Your task to perform on an android device: Open Yahoo.com Image 0: 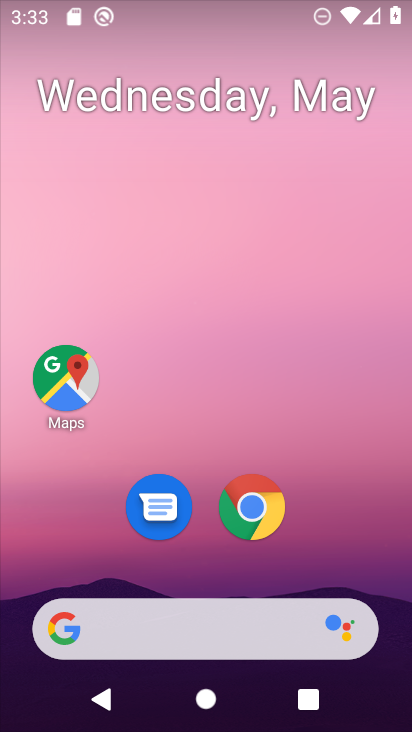
Step 0: click (254, 523)
Your task to perform on an android device: Open Yahoo.com Image 1: 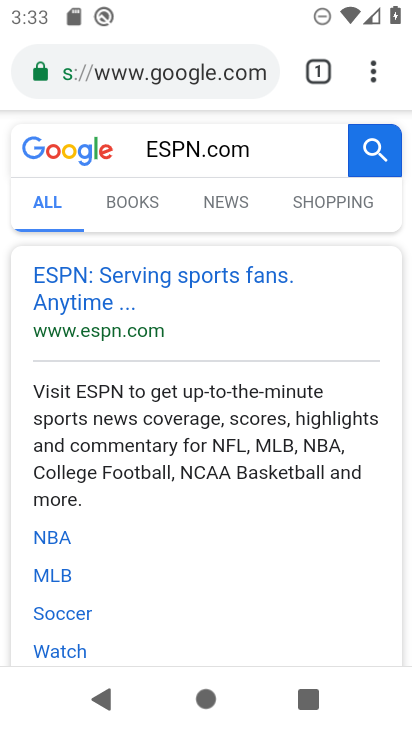
Step 1: click (233, 72)
Your task to perform on an android device: Open Yahoo.com Image 2: 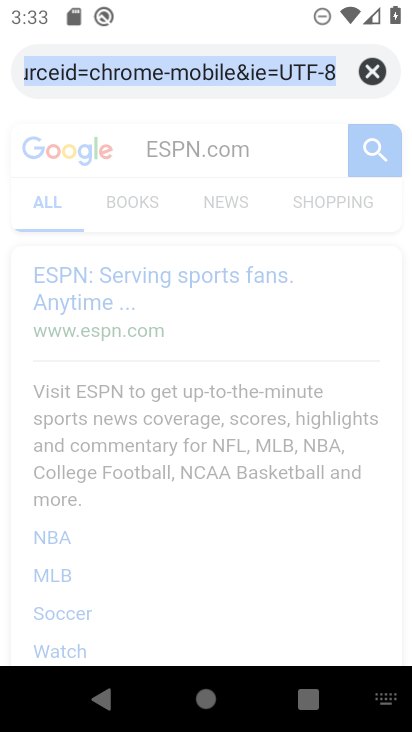
Step 2: type "Yahoo.com"
Your task to perform on an android device: Open Yahoo.com Image 3: 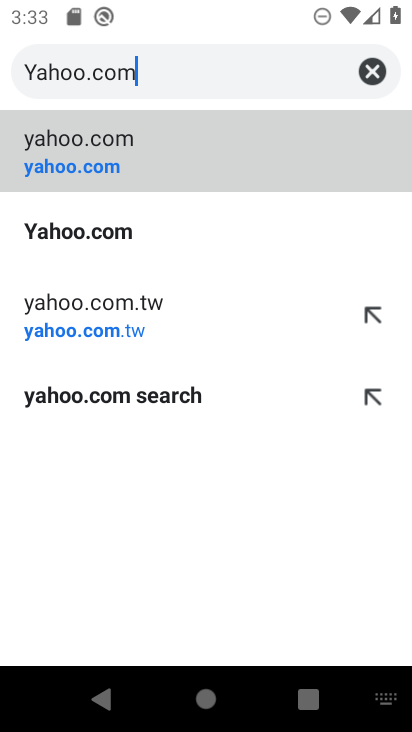
Step 3: click (101, 239)
Your task to perform on an android device: Open Yahoo.com Image 4: 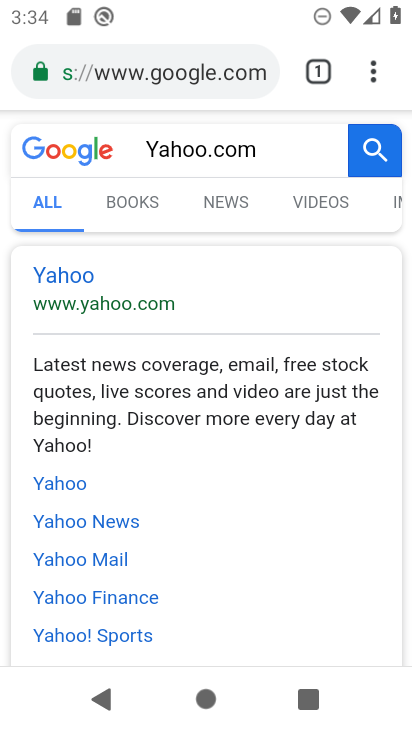
Step 4: task complete